Your task to perform on an android device: find which apps use the phone's location Image 0: 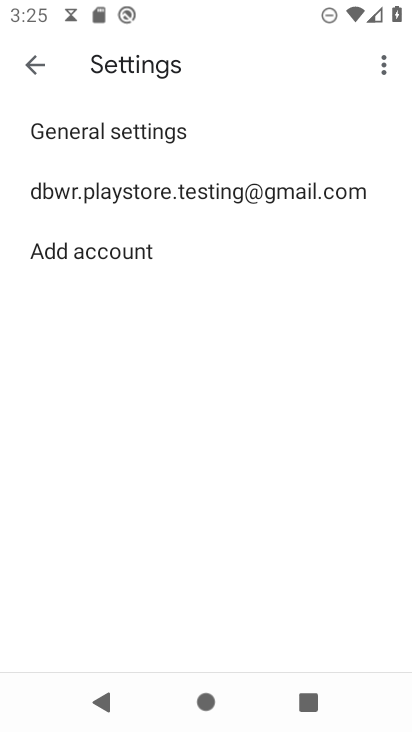
Step 0: press home button
Your task to perform on an android device: find which apps use the phone's location Image 1: 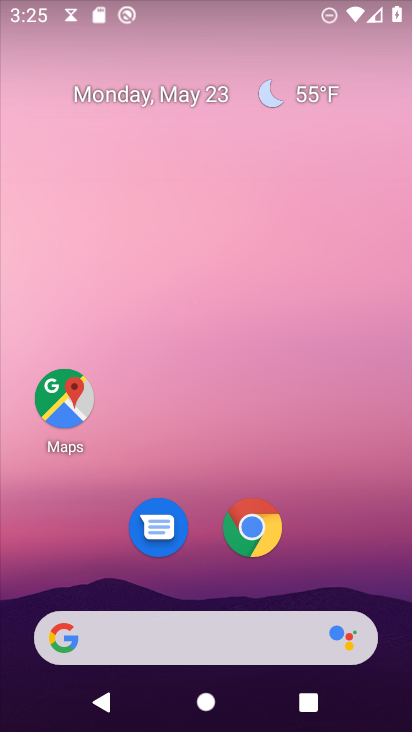
Step 1: drag from (198, 588) to (250, 67)
Your task to perform on an android device: find which apps use the phone's location Image 2: 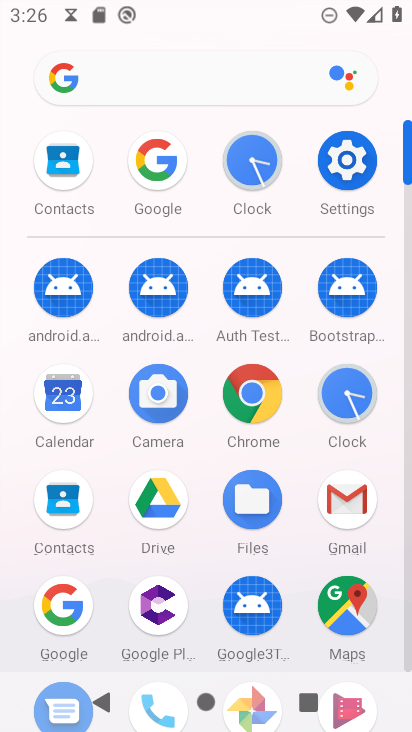
Step 2: click (342, 155)
Your task to perform on an android device: find which apps use the phone's location Image 3: 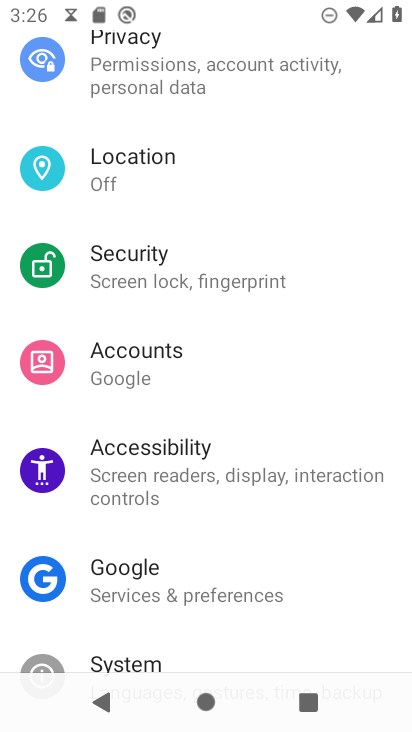
Step 3: click (153, 173)
Your task to perform on an android device: find which apps use the phone's location Image 4: 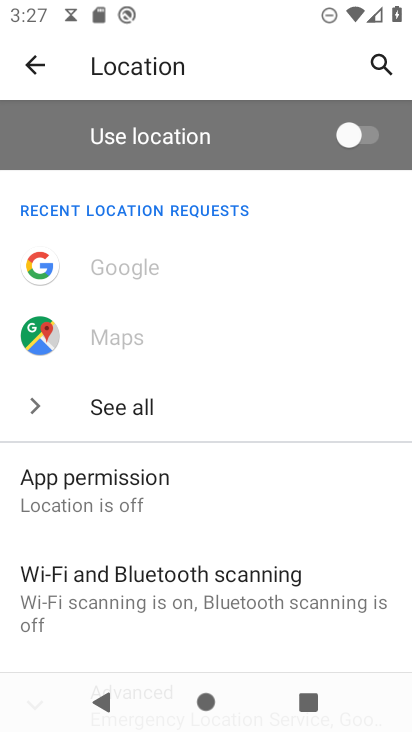
Step 4: click (162, 493)
Your task to perform on an android device: find which apps use the phone's location Image 5: 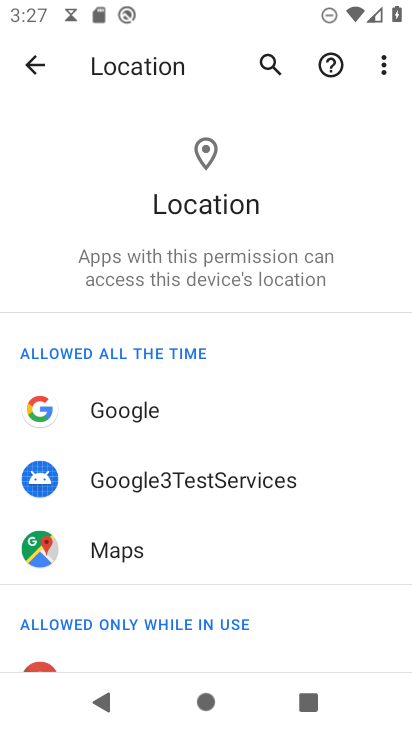
Step 5: task complete